Your task to perform on an android device: Open calendar and show me the second week of next month Image 0: 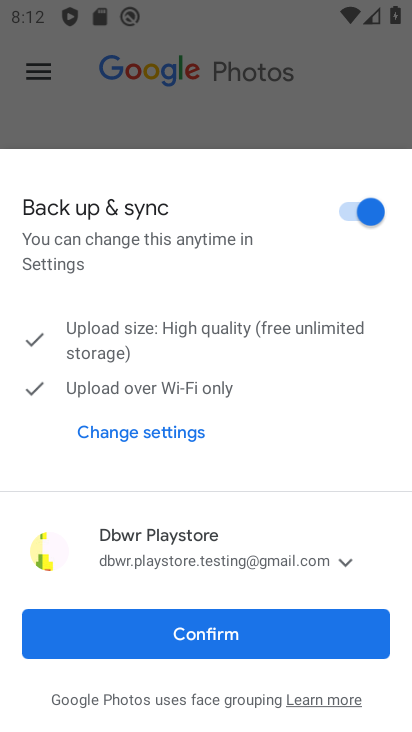
Step 0: press home button
Your task to perform on an android device: Open calendar and show me the second week of next month Image 1: 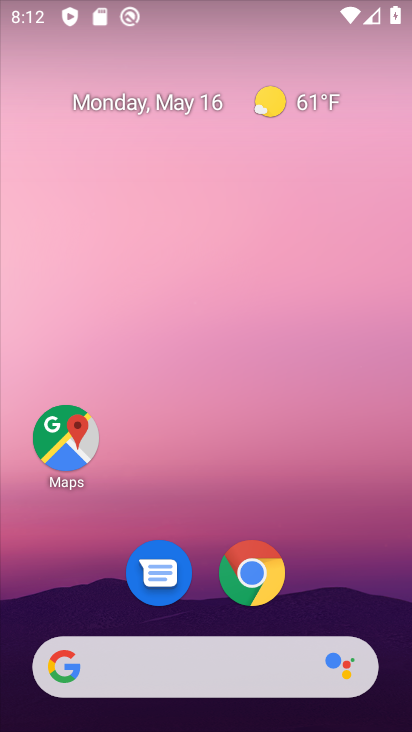
Step 1: drag from (220, 717) to (225, 197)
Your task to perform on an android device: Open calendar and show me the second week of next month Image 2: 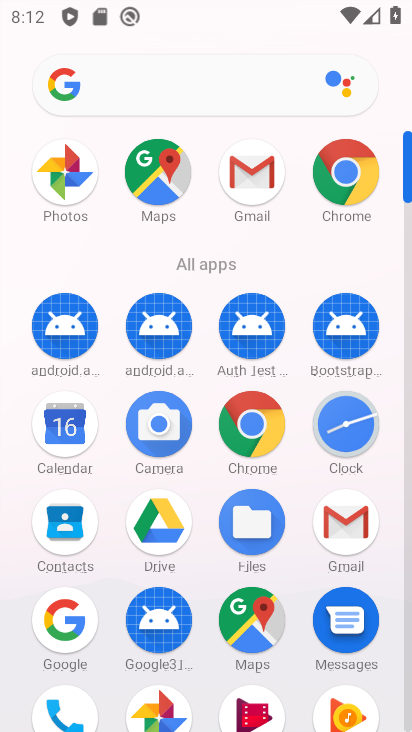
Step 2: click (69, 431)
Your task to perform on an android device: Open calendar and show me the second week of next month Image 3: 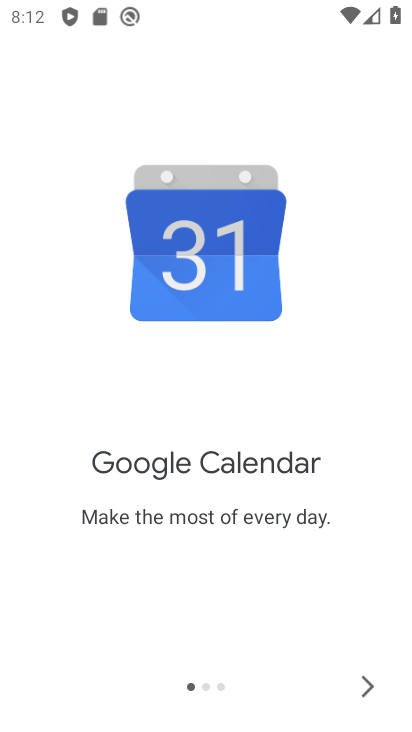
Step 3: click (367, 685)
Your task to perform on an android device: Open calendar and show me the second week of next month Image 4: 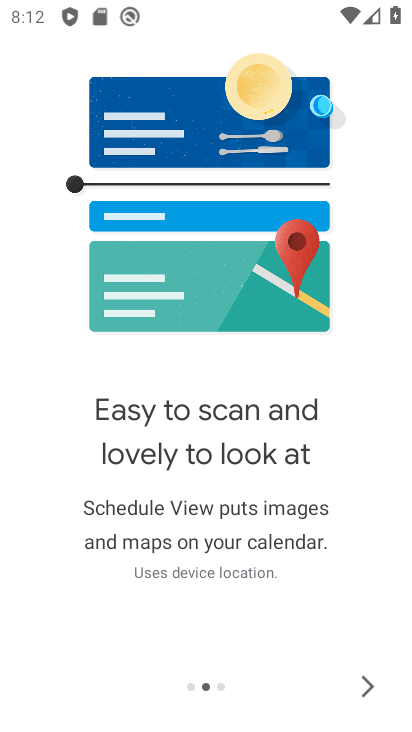
Step 4: click (367, 685)
Your task to perform on an android device: Open calendar and show me the second week of next month Image 5: 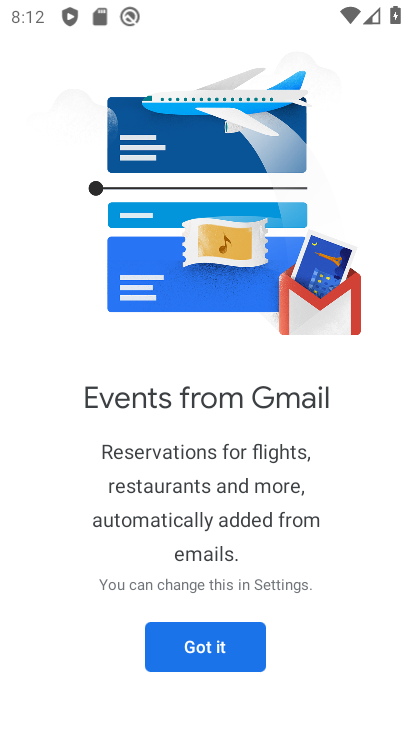
Step 5: click (226, 643)
Your task to perform on an android device: Open calendar and show me the second week of next month Image 6: 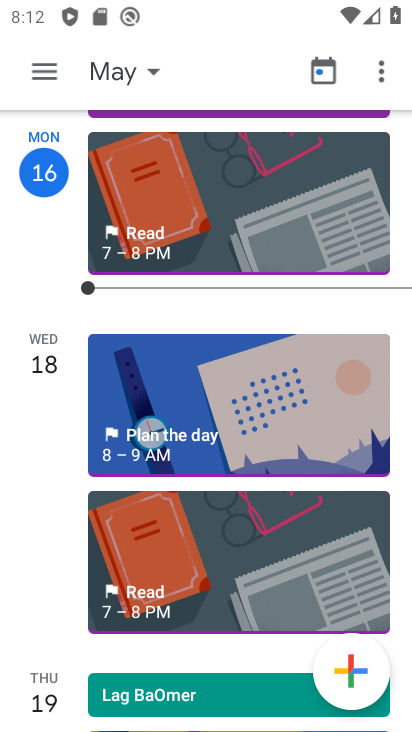
Step 6: click (121, 67)
Your task to perform on an android device: Open calendar and show me the second week of next month Image 7: 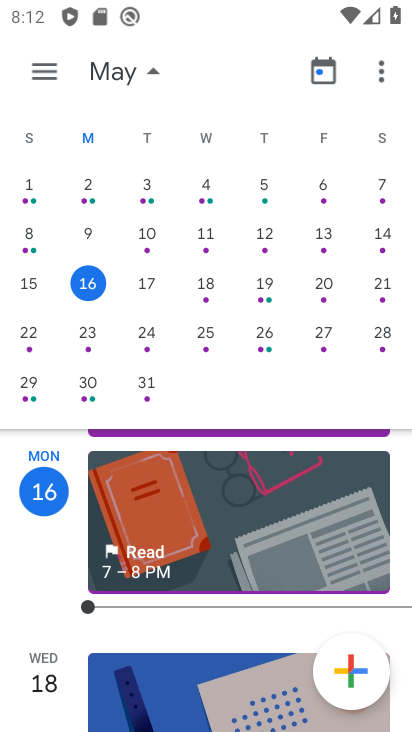
Step 7: drag from (327, 309) to (3, 265)
Your task to perform on an android device: Open calendar and show me the second week of next month Image 8: 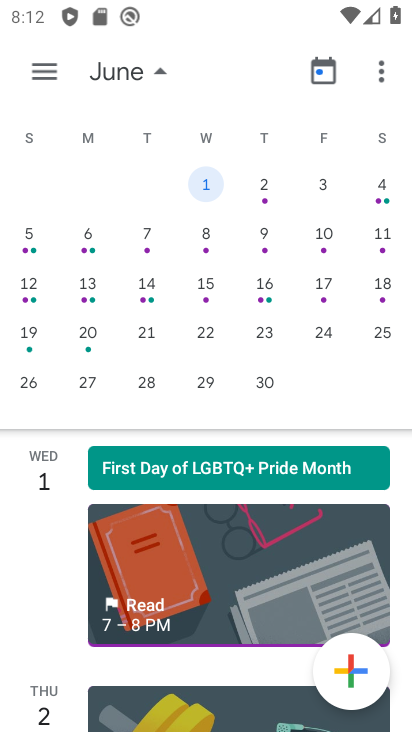
Step 8: click (89, 285)
Your task to perform on an android device: Open calendar and show me the second week of next month Image 9: 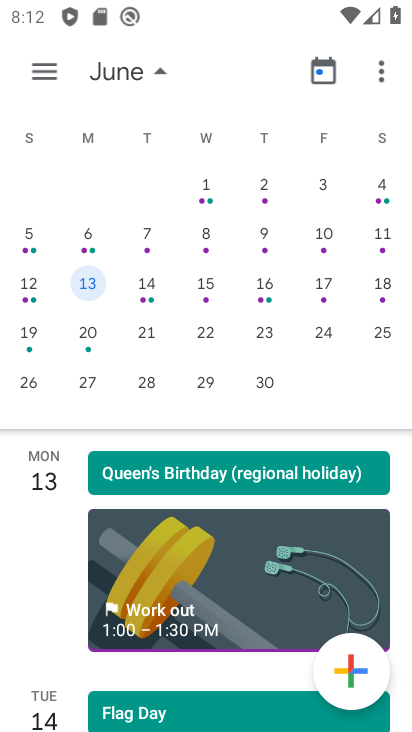
Step 9: click (45, 69)
Your task to perform on an android device: Open calendar and show me the second week of next month Image 10: 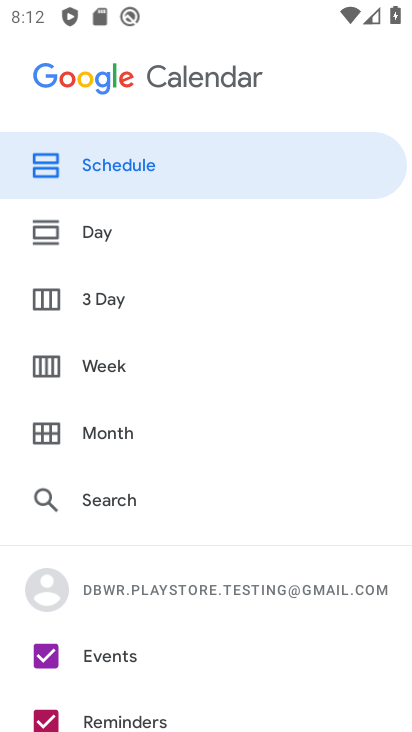
Step 10: click (87, 363)
Your task to perform on an android device: Open calendar and show me the second week of next month Image 11: 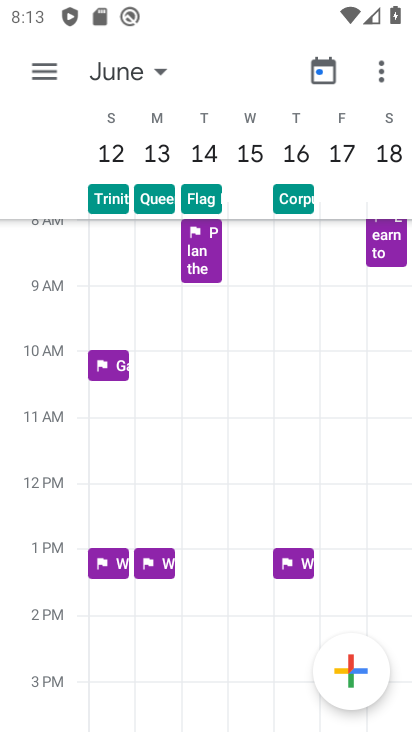
Step 11: task complete